Your task to perform on an android device: delete browsing data in the chrome app Image 0: 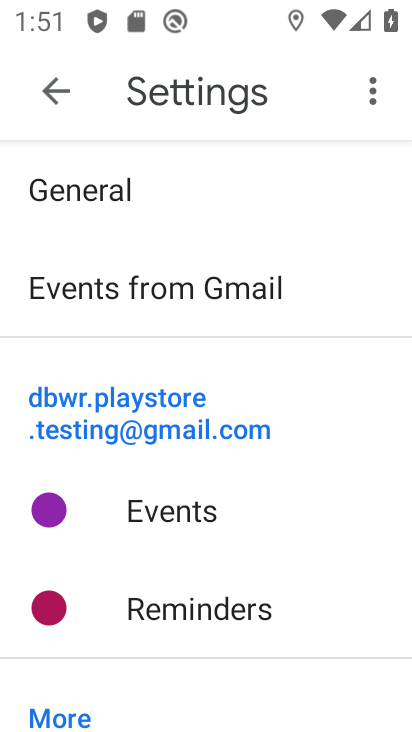
Step 0: press home button
Your task to perform on an android device: delete browsing data in the chrome app Image 1: 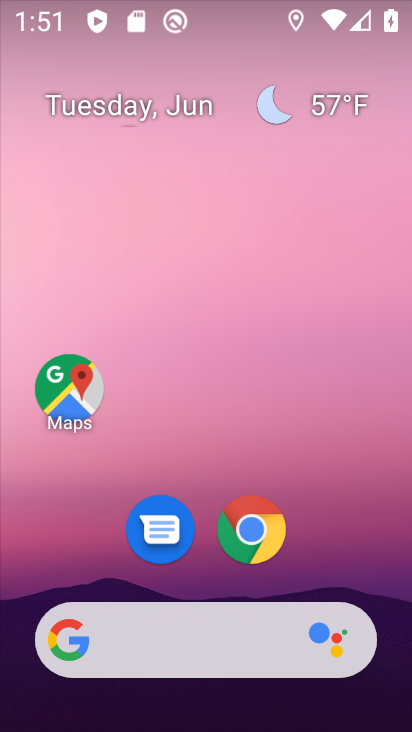
Step 1: click (244, 560)
Your task to perform on an android device: delete browsing data in the chrome app Image 2: 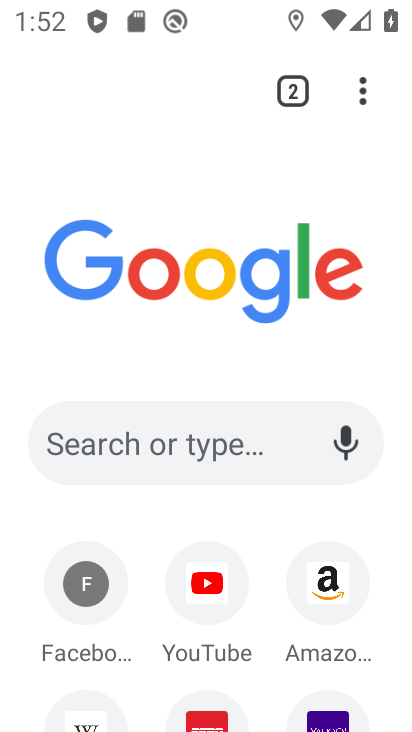
Step 2: drag from (366, 82) to (241, 578)
Your task to perform on an android device: delete browsing data in the chrome app Image 3: 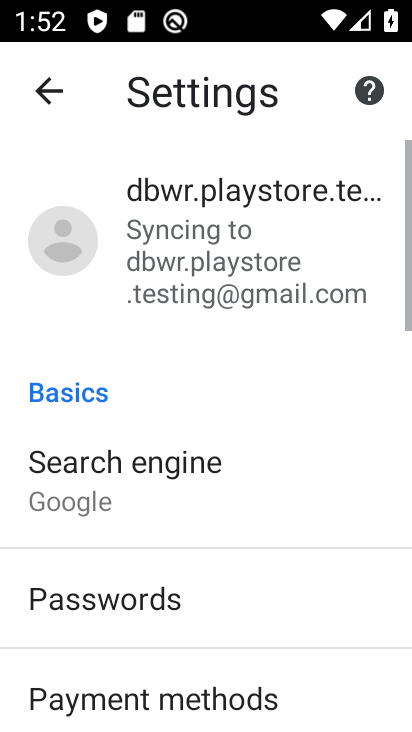
Step 3: drag from (237, 619) to (394, 170)
Your task to perform on an android device: delete browsing data in the chrome app Image 4: 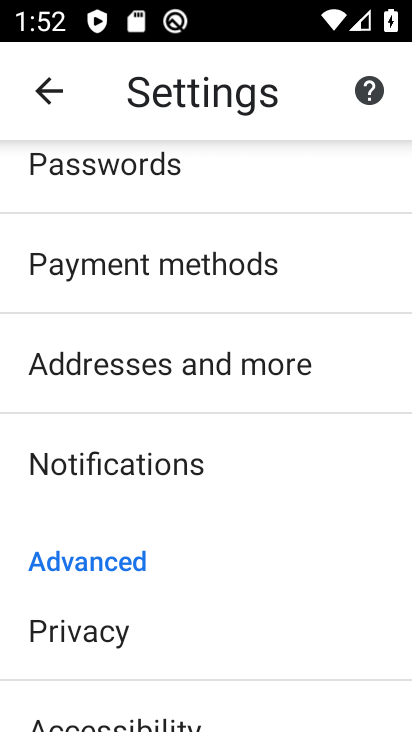
Step 4: drag from (222, 651) to (282, 412)
Your task to perform on an android device: delete browsing data in the chrome app Image 5: 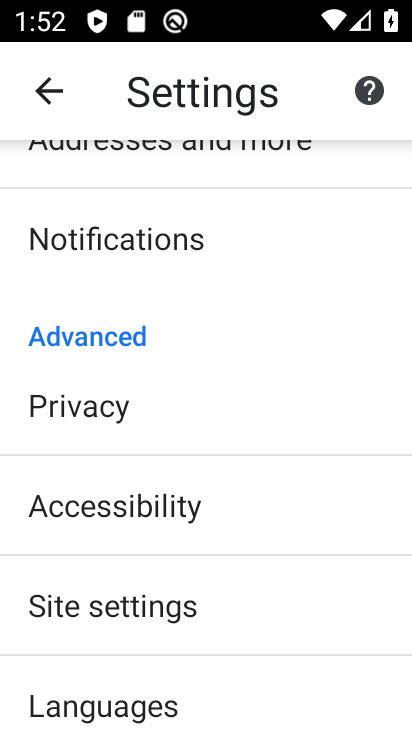
Step 5: click (187, 414)
Your task to perform on an android device: delete browsing data in the chrome app Image 6: 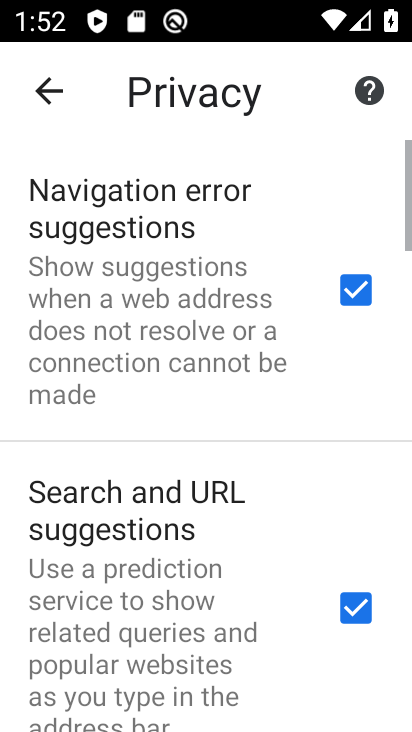
Step 6: drag from (165, 681) to (366, 97)
Your task to perform on an android device: delete browsing data in the chrome app Image 7: 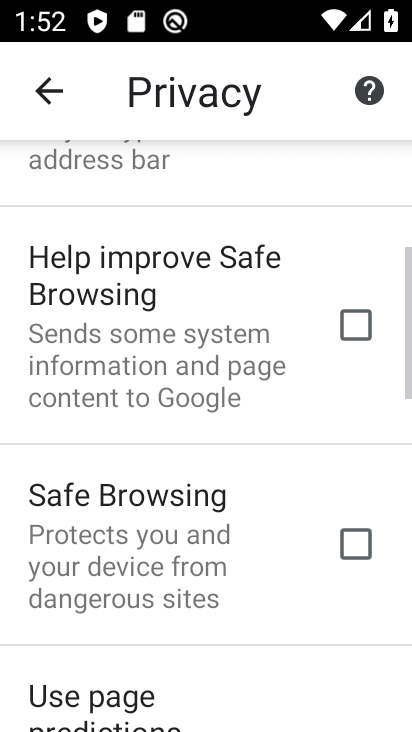
Step 7: drag from (142, 659) to (273, 159)
Your task to perform on an android device: delete browsing data in the chrome app Image 8: 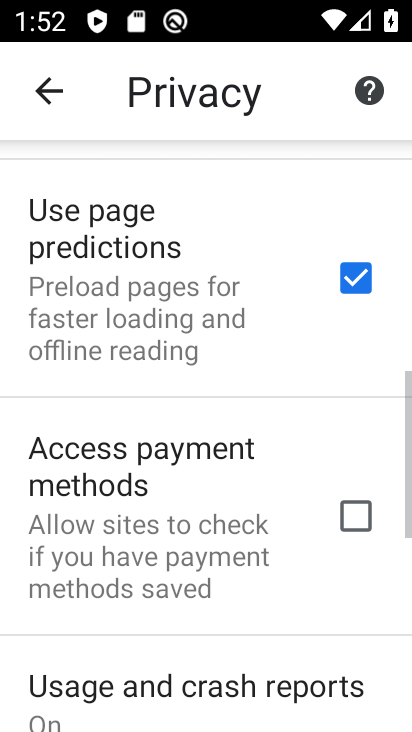
Step 8: drag from (215, 345) to (298, 133)
Your task to perform on an android device: delete browsing data in the chrome app Image 9: 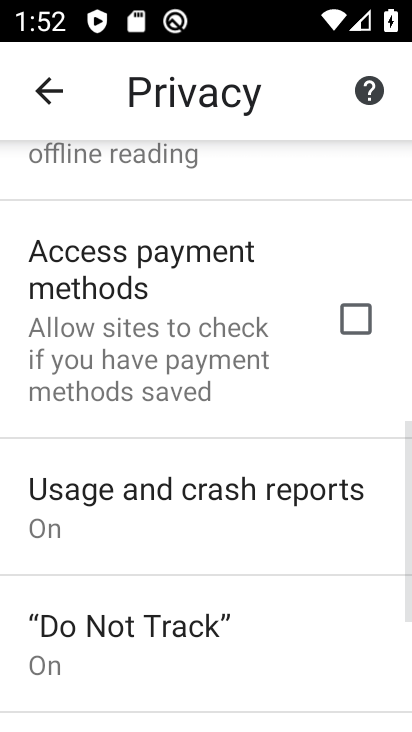
Step 9: drag from (189, 648) to (321, 119)
Your task to perform on an android device: delete browsing data in the chrome app Image 10: 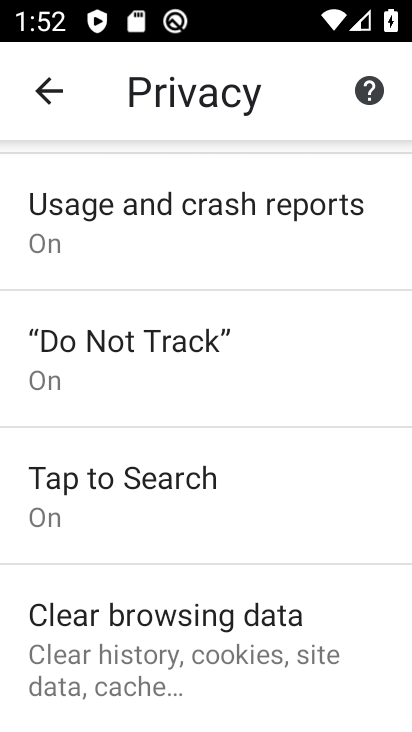
Step 10: click (201, 605)
Your task to perform on an android device: delete browsing data in the chrome app Image 11: 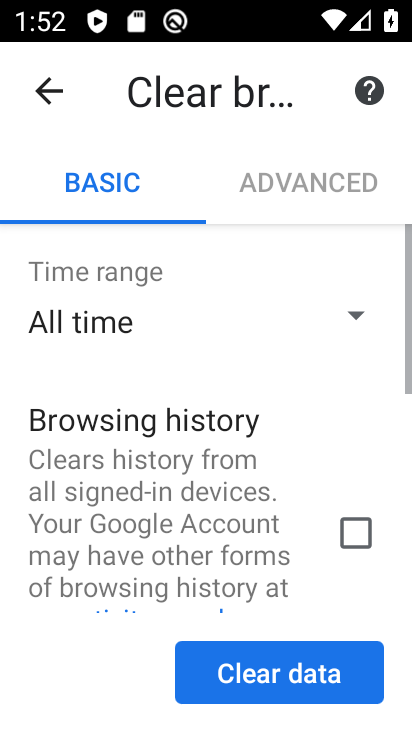
Step 11: click (362, 531)
Your task to perform on an android device: delete browsing data in the chrome app Image 12: 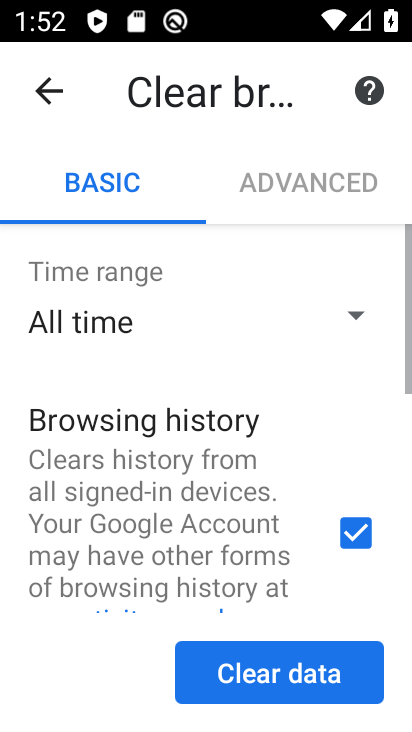
Step 12: drag from (175, 566) to (299, 155)
Your task to perform on an android device: delete browsing data in the chrome app Image 13: 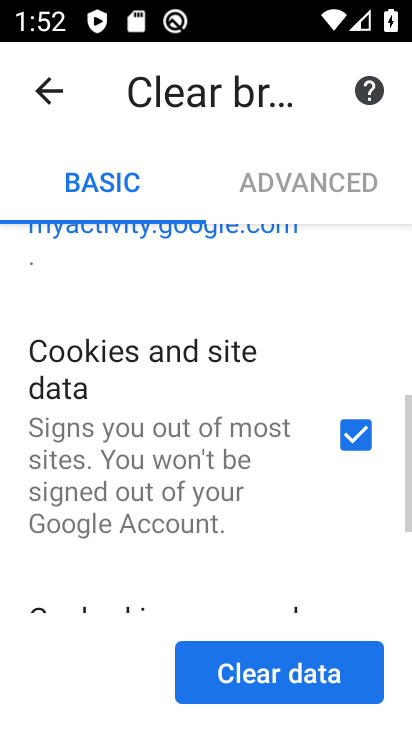
Step 13: drag from (204, 567) to (317, 179)
Your task to perform on an android device: delete browsing data in the chrome app Image 14: 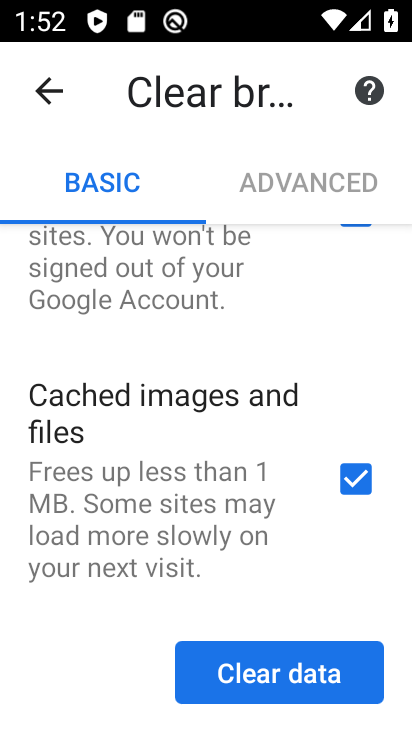
Step 14: click (317, 656)
Your task to perform on an android device: delete browsing data in the chrome app Image 15: 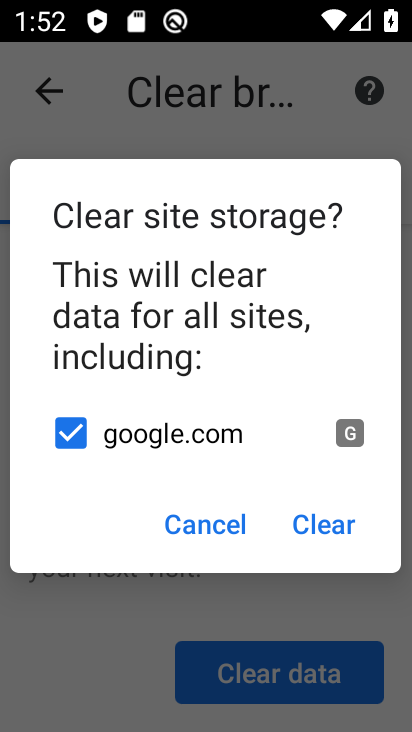
Step 15: click (337, 547)
Your task to perform on an android device: delete browsing data in the chrome app Image 16: 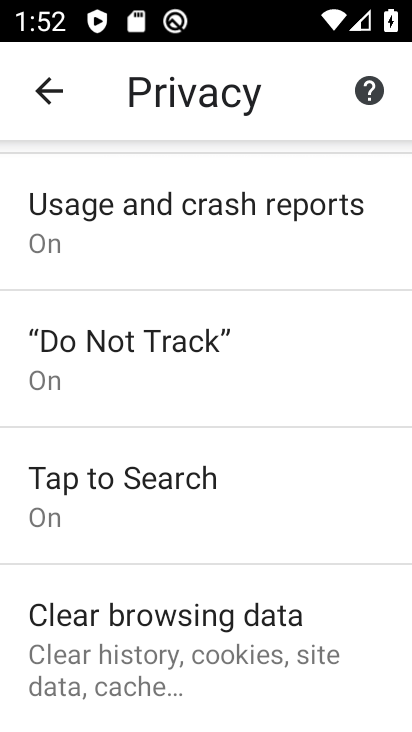
Step 16: task complete